Your task to perform on an android device: Clear the shopping cart on bestbuy.com. Search for "razer thresher" on bestbuy.com, select the first entry, and add it to the cart. Image 0: 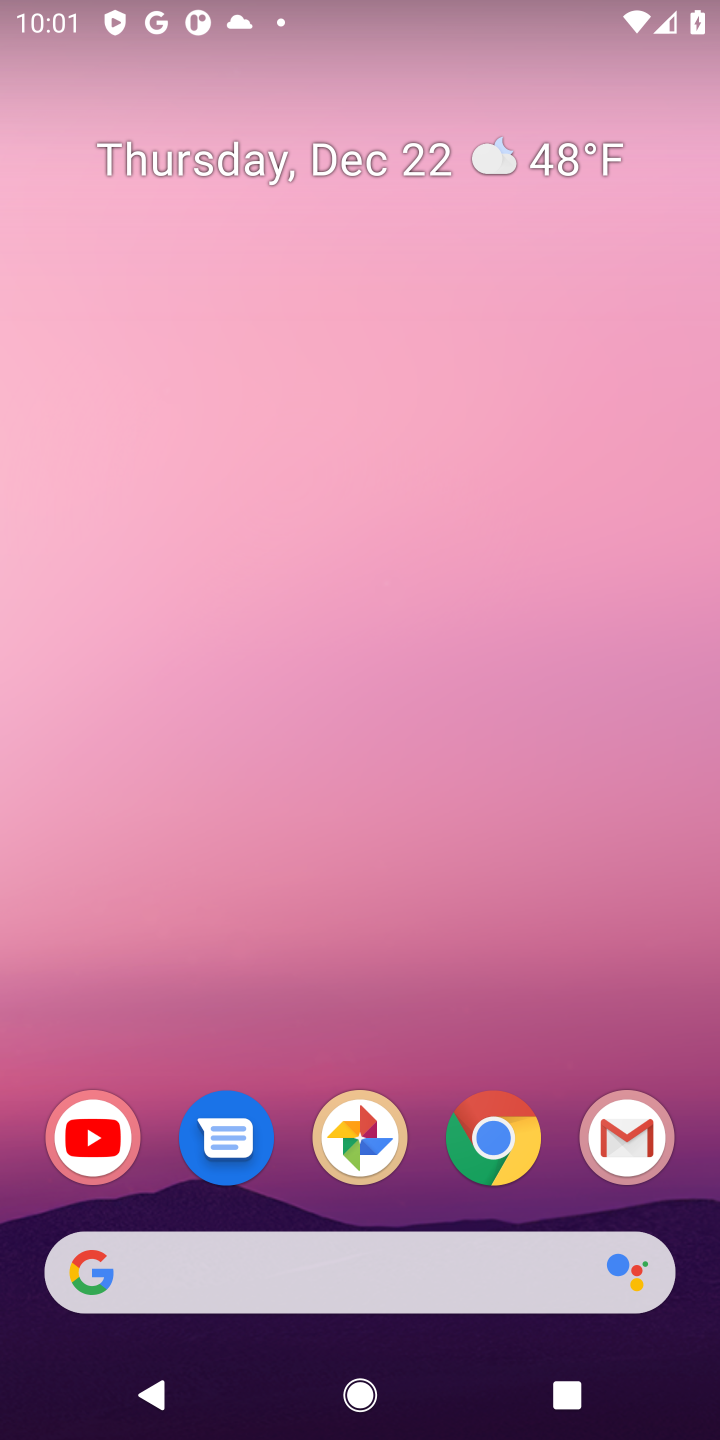
Step 0: click (498, 1129)
Your task to perform on an android device: Clear the shopping cart on bestbuy.com. Search for "razer thresher" on bestbuy.com, select the first entry, and add it to the cart. Image 1: 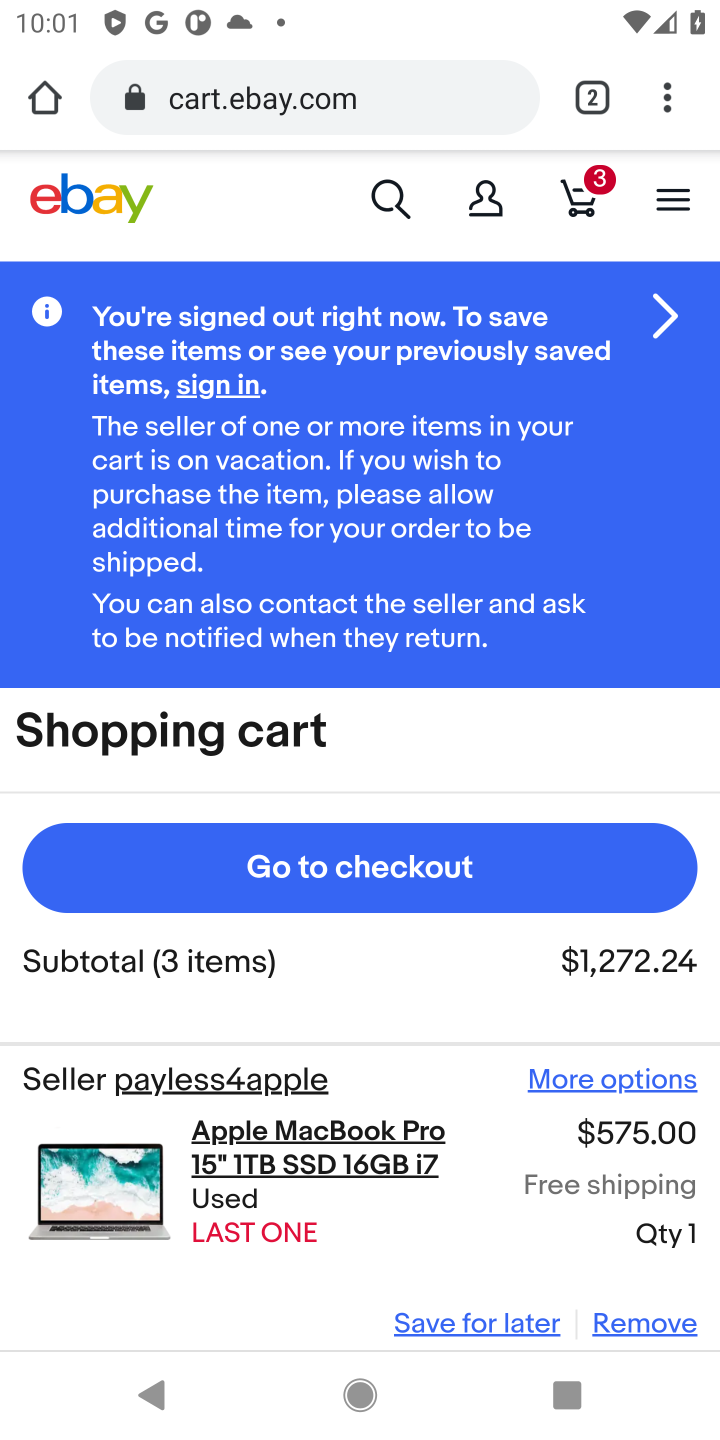
Step 1: click (261, 100)
Your task to perform on an android device: Clear the shopping cart on bestbuy.com. Search for "razer thresher" on bestbuy.com, select the first entry, and add it to the cart. Image 2: 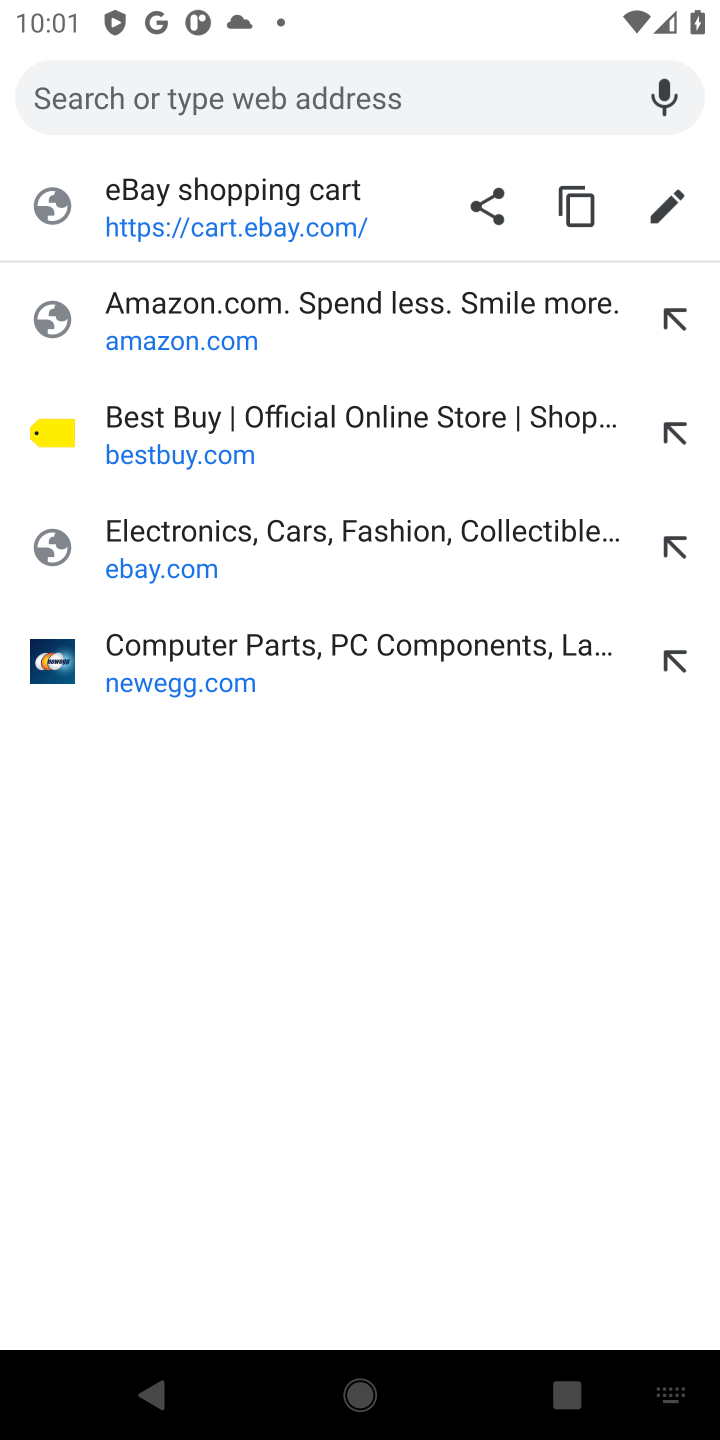
Step 2: type "bestbuy.com"
Your task to perform on an android device: Clear the shopping cart on bestbuy.com. Search for "razer thresher" on bestbuy.com, select the first entry, and add it to the cart. Image 3: 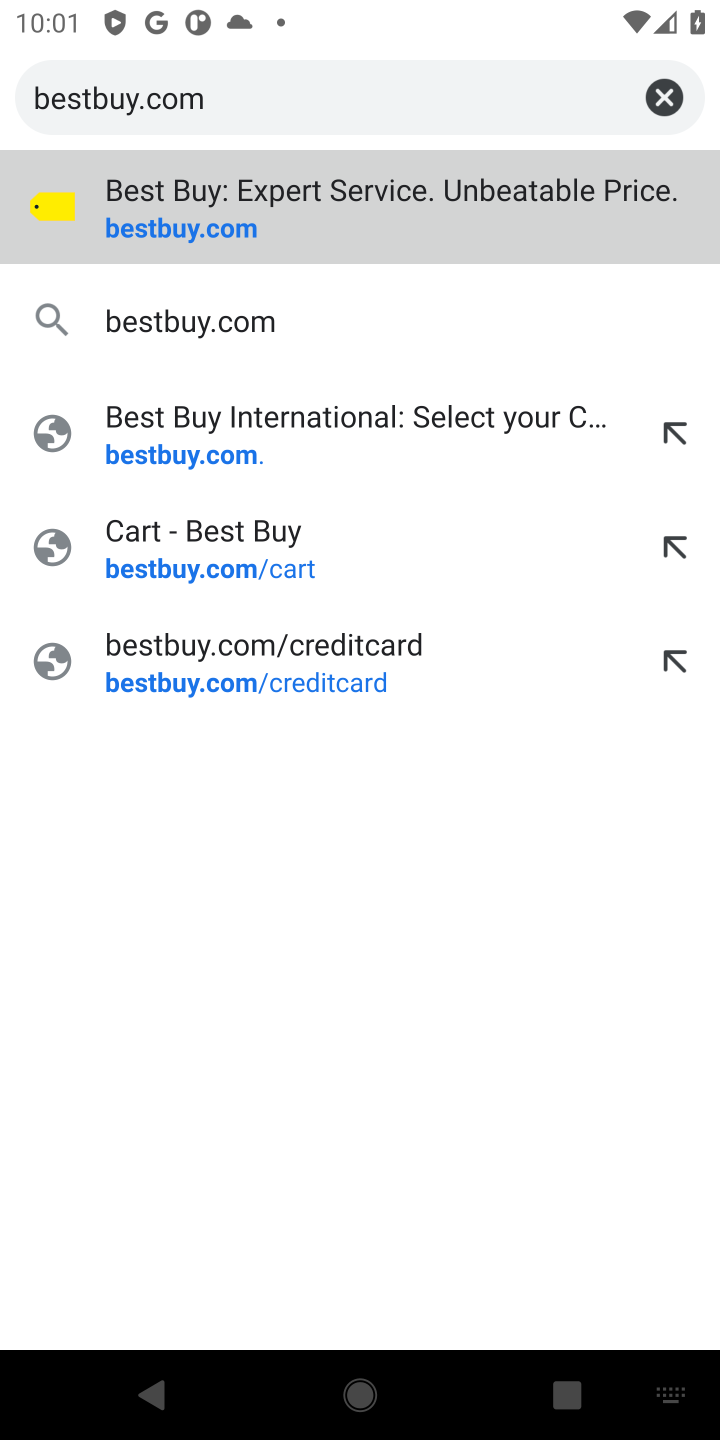
Step 3: click (323, 194)
Your task to perform on an android device: Clear the shopping cart on bestbuy.com. Search for "razer thresher" on bestbuy.com, select the first entry, and add it to the cart. Image 4: 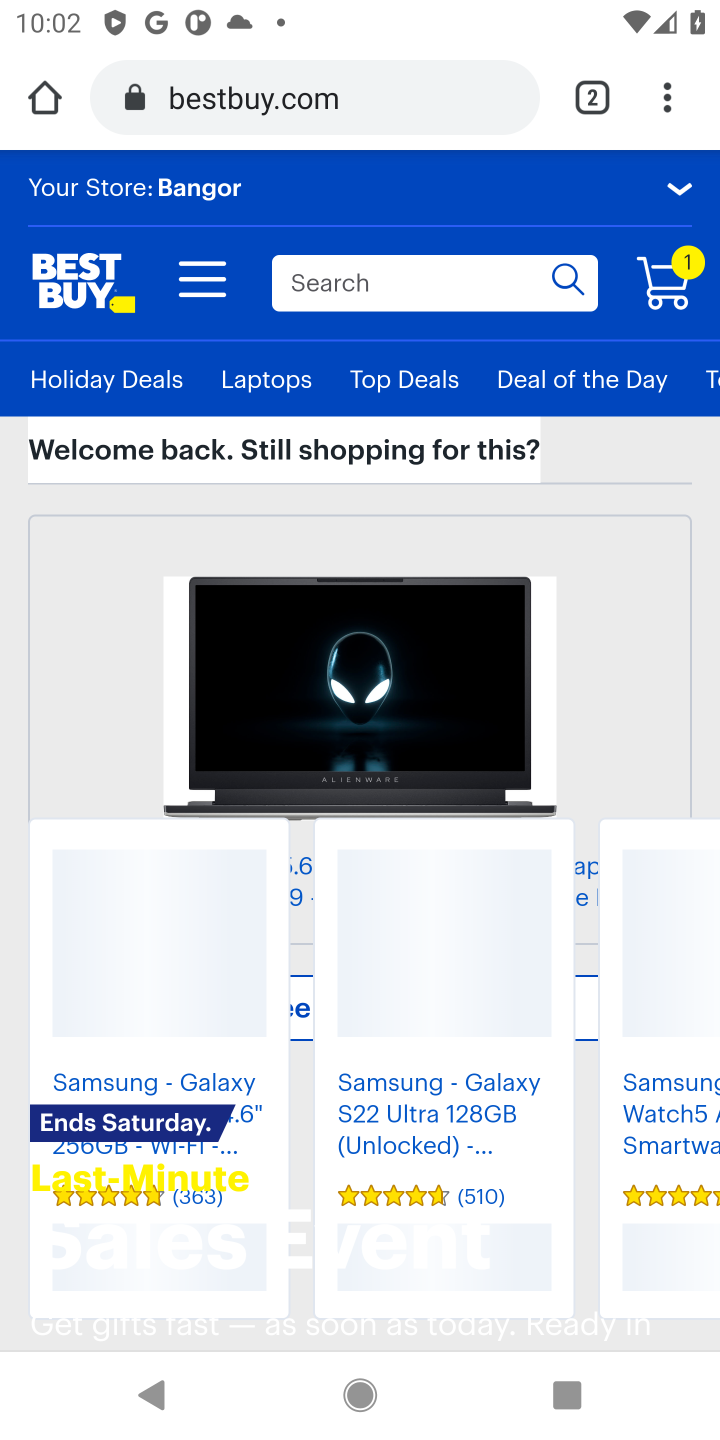
Step 4: click (680, 313)
Your task to perform on an android device: Clear the shopping cart on bestbuy.com. Search for "razer thresher" on bestbuy.com, select the first entry, and add it to the cart. Image 5: 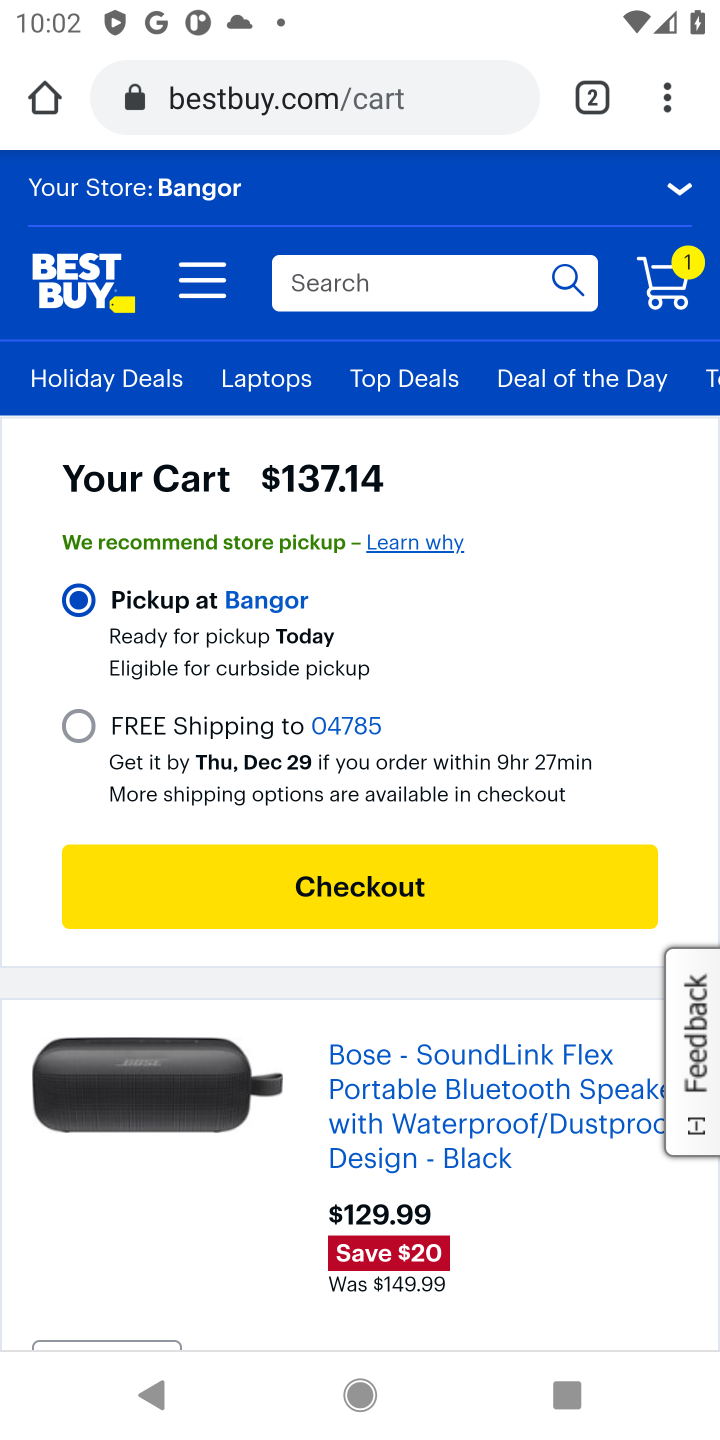
Step 5: drag from (513, 1097) to (520, 726)
Your task to perform on an android device: Clear the shopping cart on bestbuy.com. Search for "razer thresher" on bestbuy.com, select the first entry, and add it to the cart. Image 6: 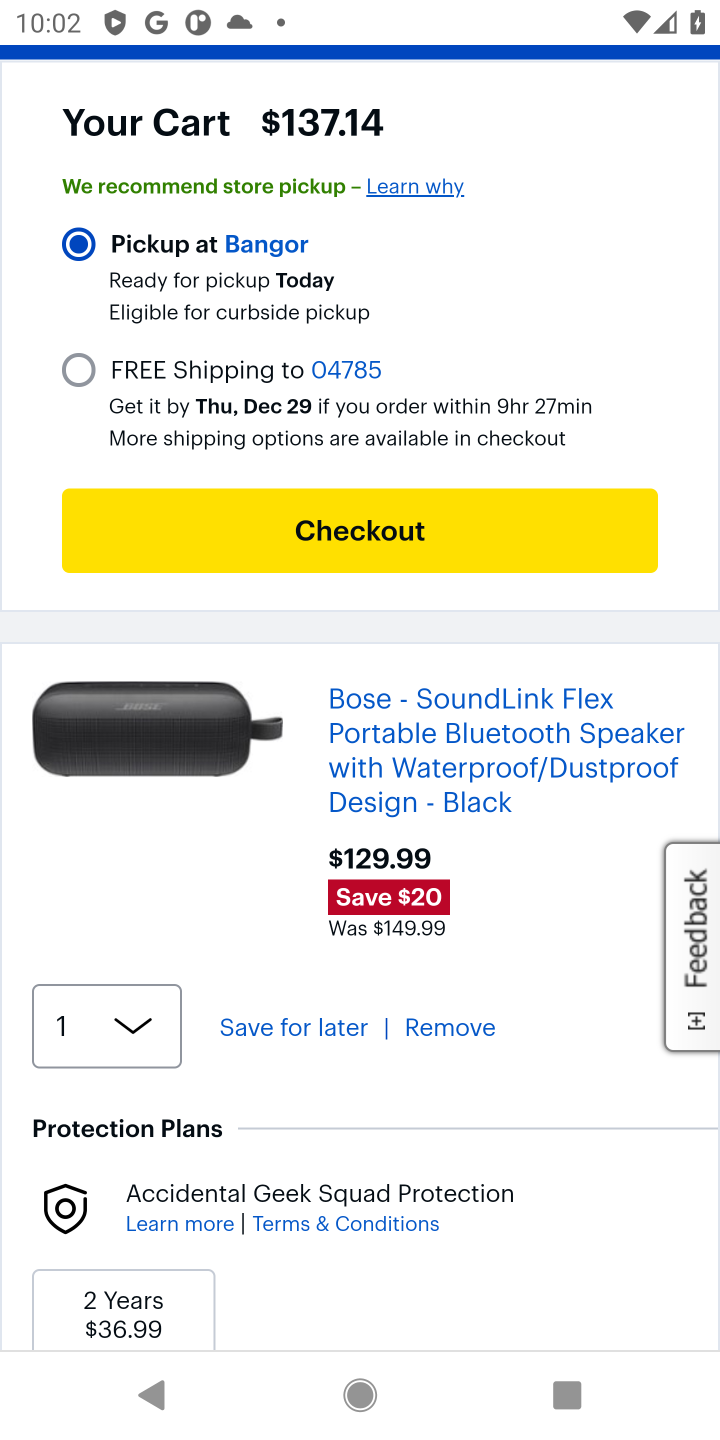
Step 6: click (426, 1033)
Your task to perform on an android device: Clear the shopping cart on bestbuy.com. Search for "razer thresher" on bestbuy.com, select the first entry, and add it to the cart. Image 7: 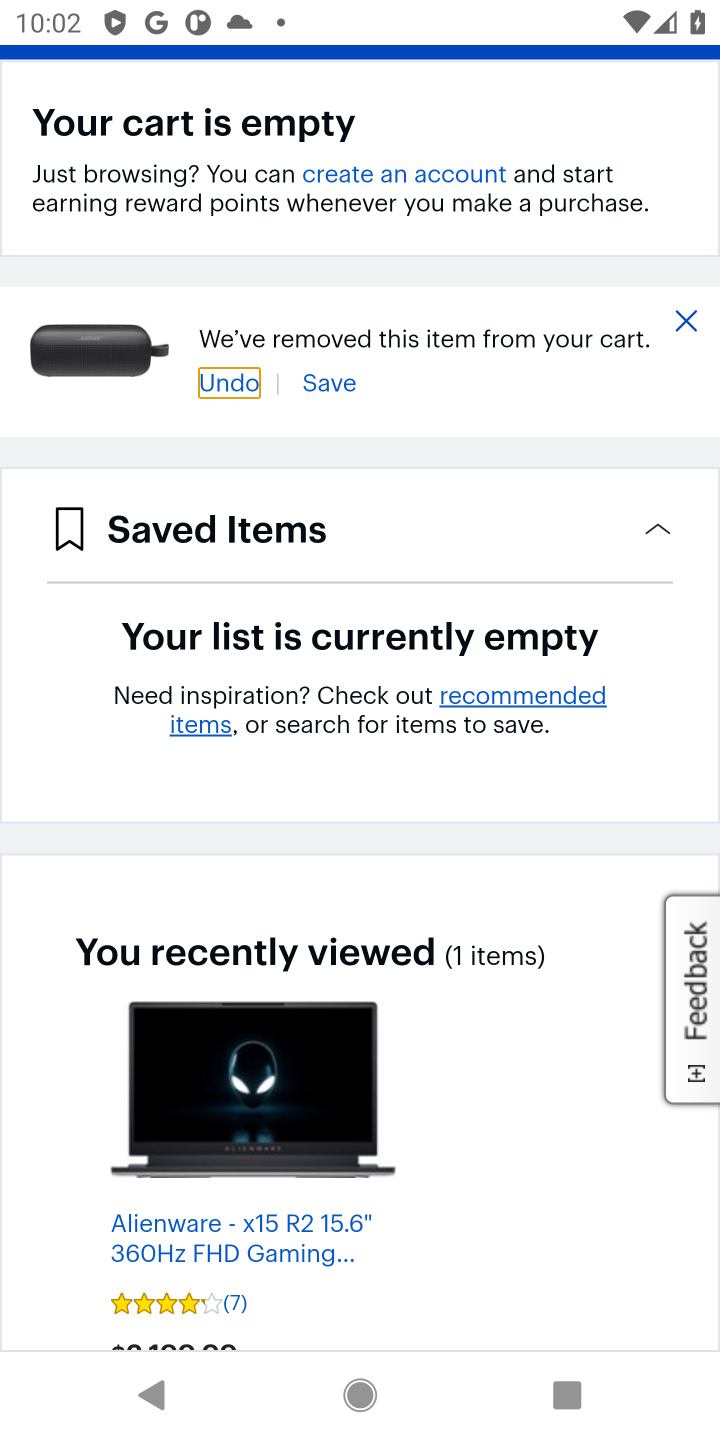
Step 7: drag from (354, 449) to (355, 1344)
Your task to perform on an android device: Clear the shopping cart on bestbuy.com. Search for "razer thresher" on bestbuy.com, select the first entry, and add it to the cart. Image 8: 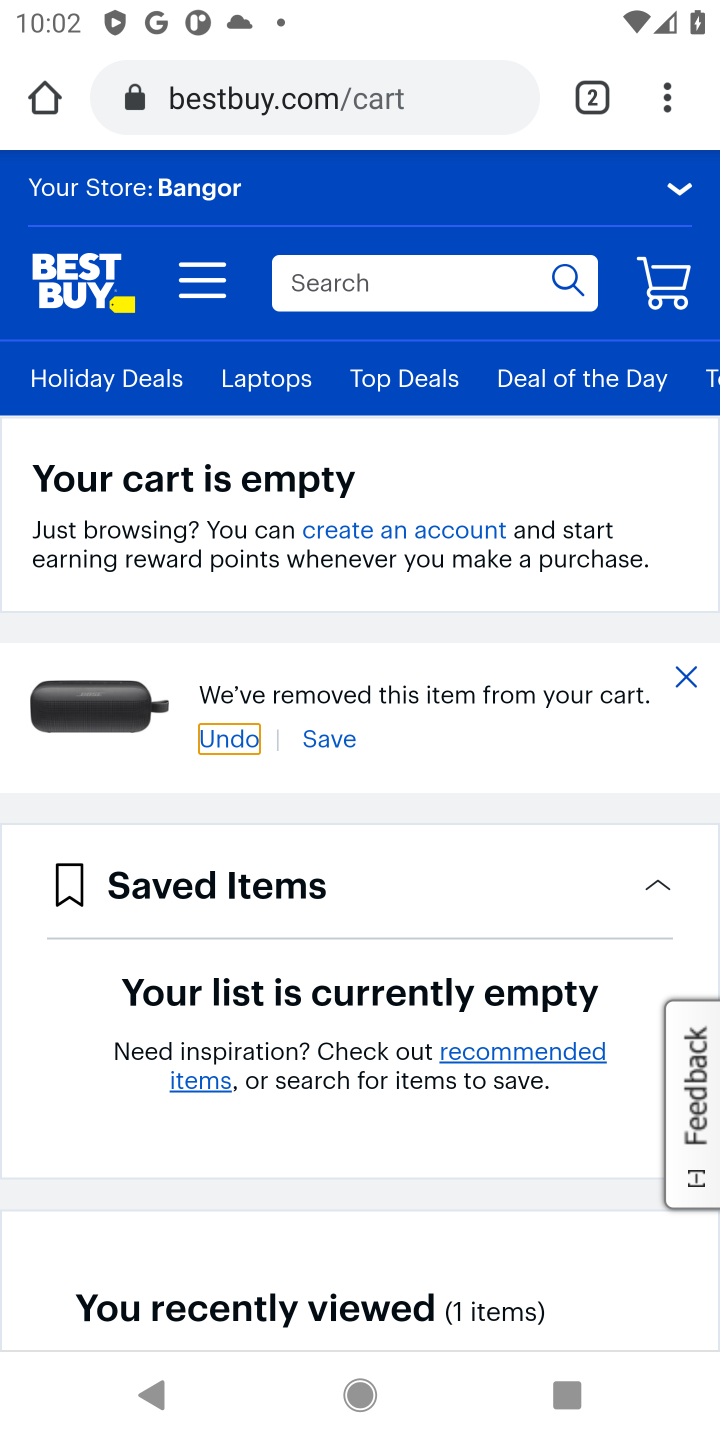
Step 8: click (372, 282)
Your task to perform on an android device: Clear the shopping cart on bestbuy.com. Search for "razer thresher" on bestbuy.com, select the first entry, and add it to the cart. Image 9: 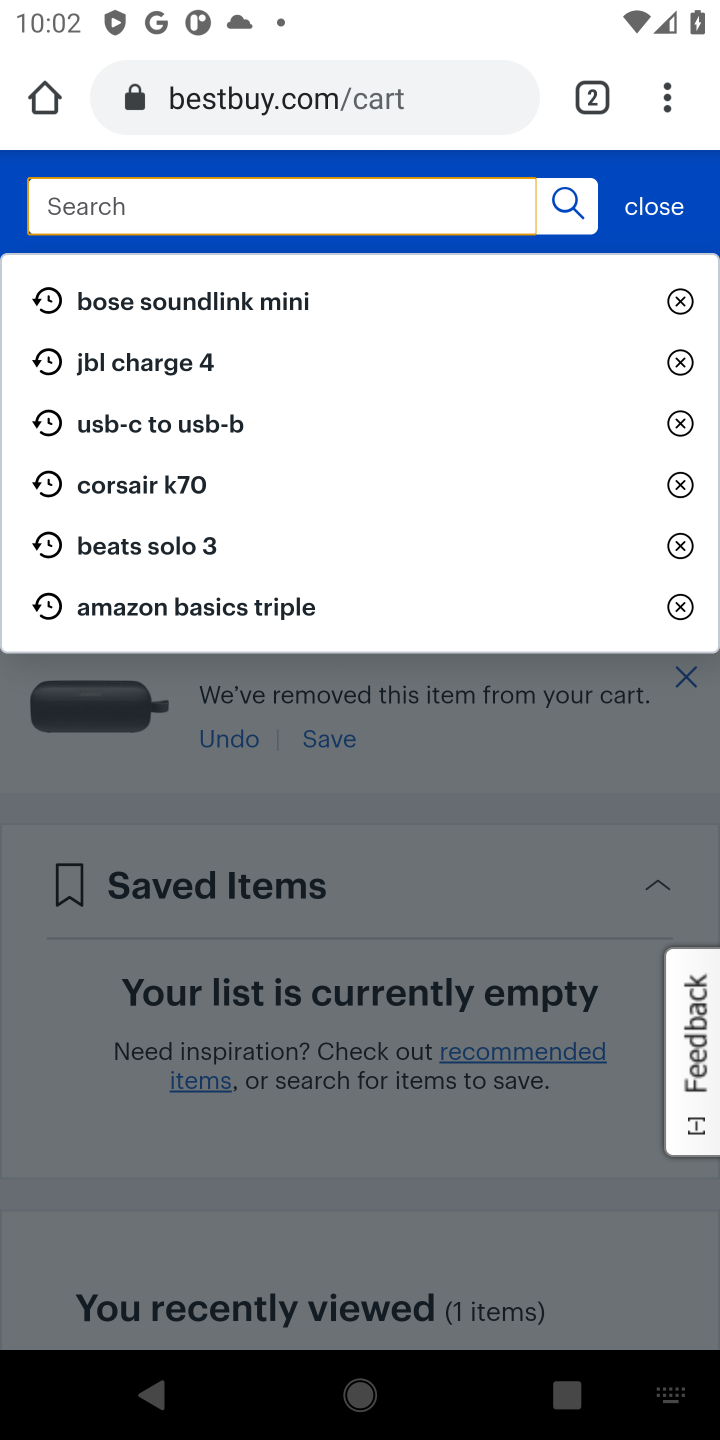
Step 9: type "razer thresher"
Your task to perform on an android device: Clear the shopping cart on bestbuy.com. Search for "razer thresher" on bestbuy.com, select the first entry, and add it to the cart. Image 10: 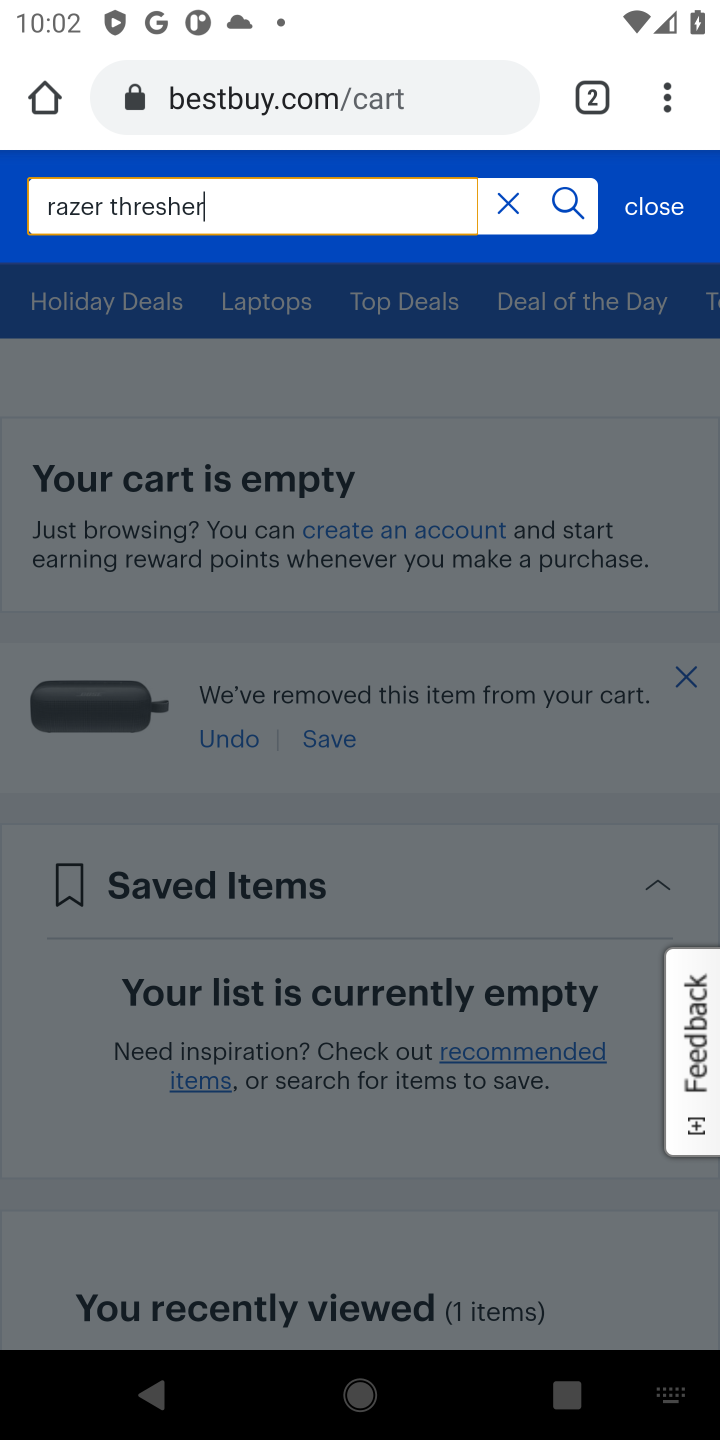
Step 10: press enter
Your task to perform on an android device: Clear the shopping cart on bestbuy.com. Search for "razer thresher" on bestbuy.com, select the first entry, and add it to the cart. Image 11: 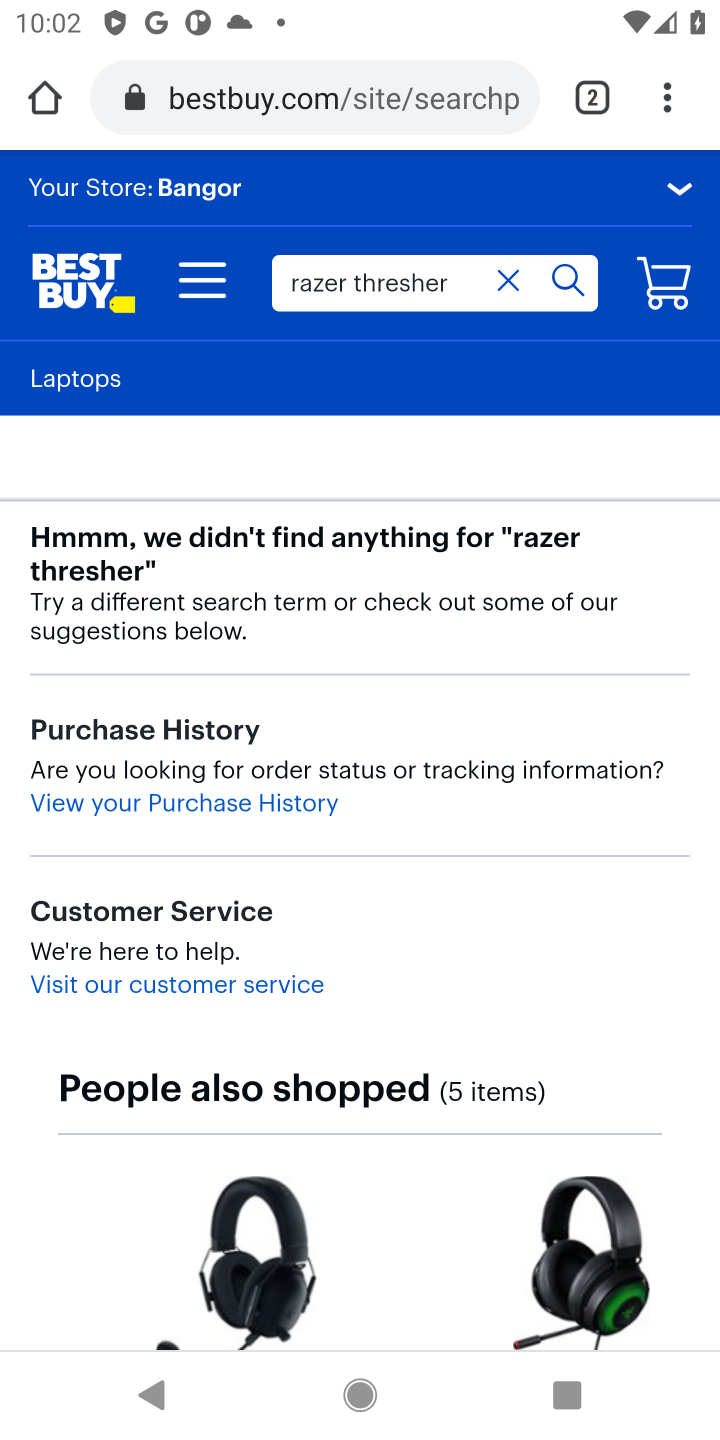
Step 11: task complete